Your task to perform on an android device: Go to privacy settings Image 0: 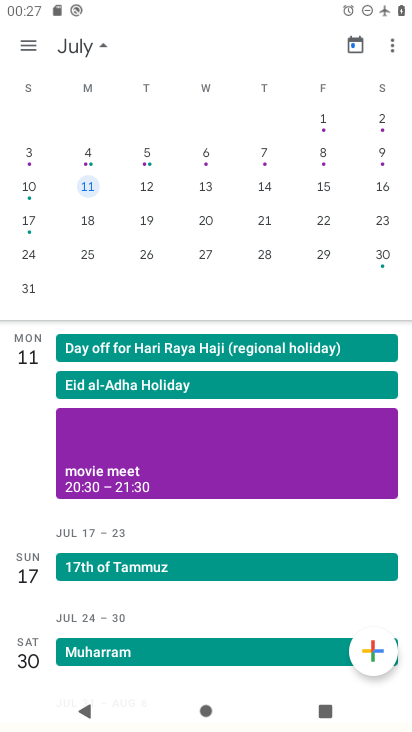
Step 0: press home button
Your task to perform on an android device: Go to privacy settings Image 1: 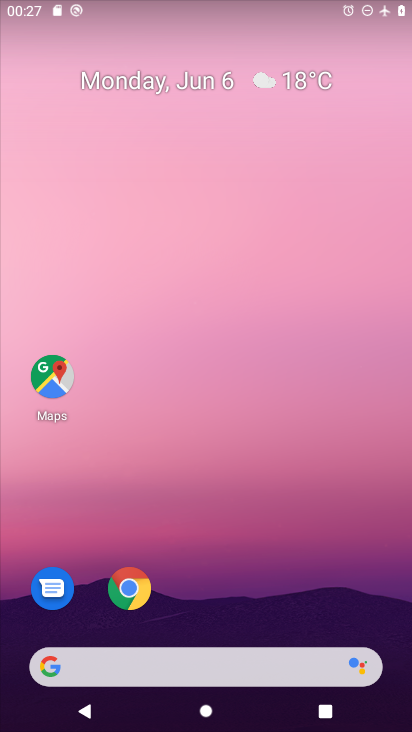
Step 1: drag from (345, 552) to (360, 158)
Your task to perform on an android device: Go to privacy settings Image 2: 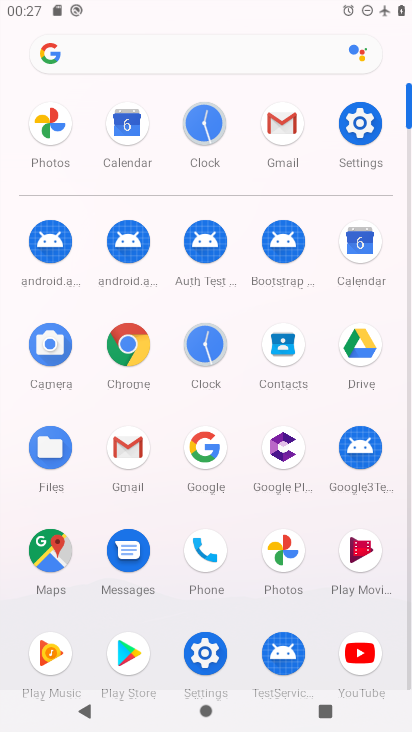
Step 2: click (350, 146)
Your task to perform on an android device: Go to privacy settings Image 3: 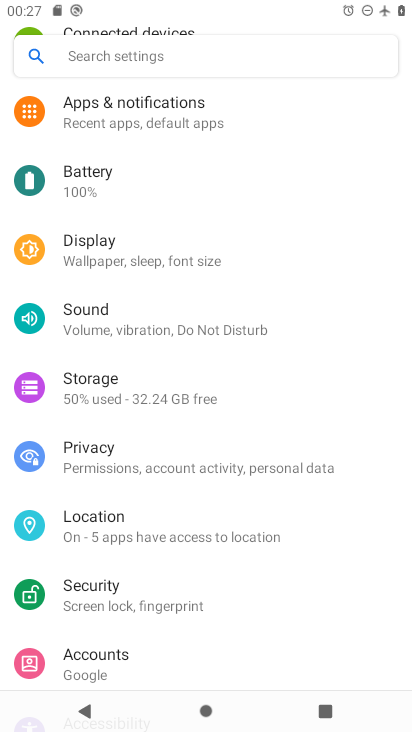
Step 3: drag from (356, 449) to (356, 319)
Your task to perform on an android device: Go to privacy settings Image 4: 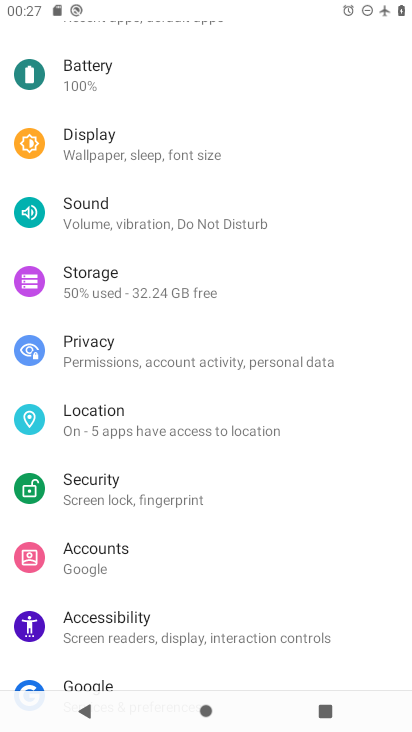
Step 4: drag from (329, 491) to (350, 382)
Your task to perform on an android device: Go to privacy settings Image 5: 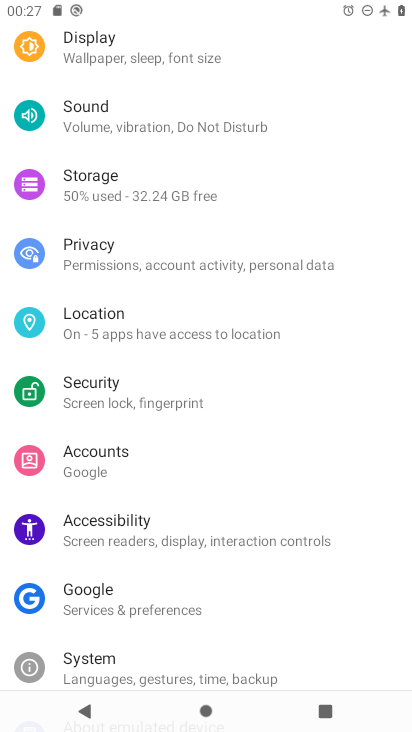
Step 5: drag from (365, 565) to (378, 436)
Your task to perform on an android device: Go to privacy settings Image 6: 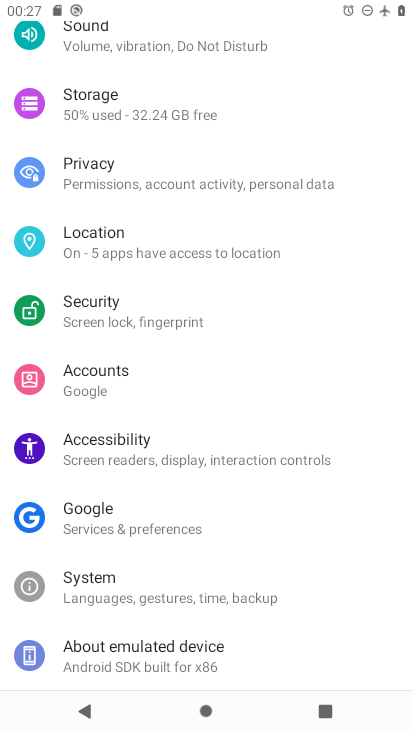
Step 6: drag from (377, 333) to (377, 409)
Your task to perform on an android device: Go to privacy settings Image 7: 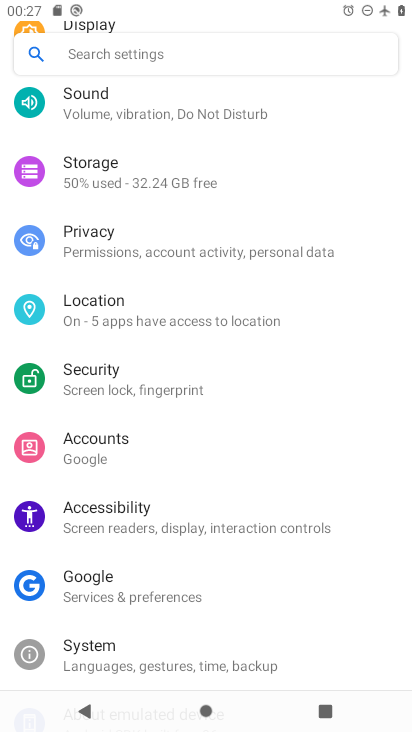
Step 7: drag from (362, 309) to (362, 392)
Your task to perform on an android device: Go to privacy settings Image 8: 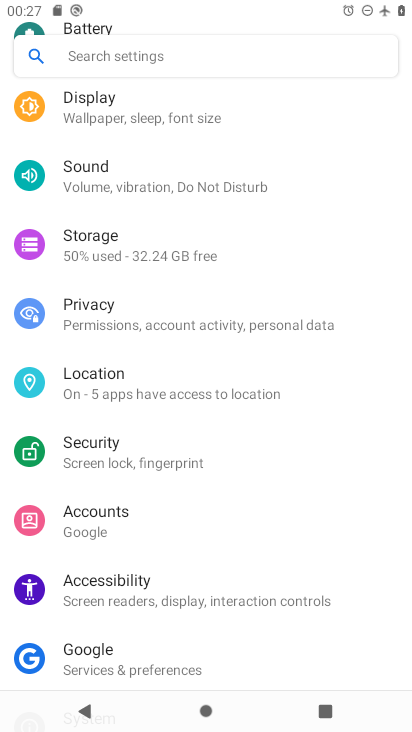
Step 8: drag from (350, 244) to (350, 391)
Your task to perform on an android device: Go to privacy settings Image 9: 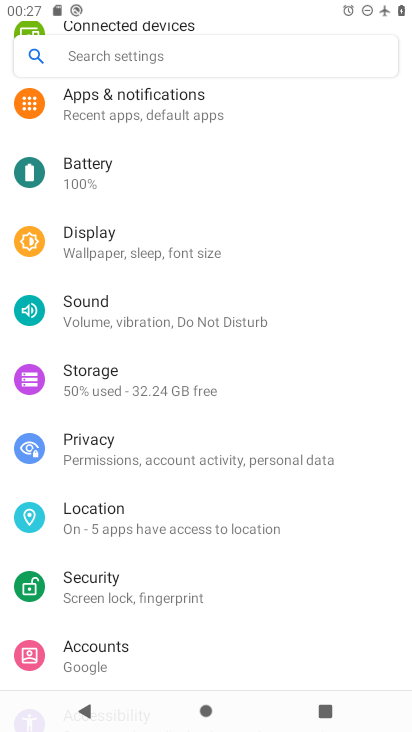
Step 9: click (264, 464)
Your task to perform on an android device: Go to privacy settings Image 10: 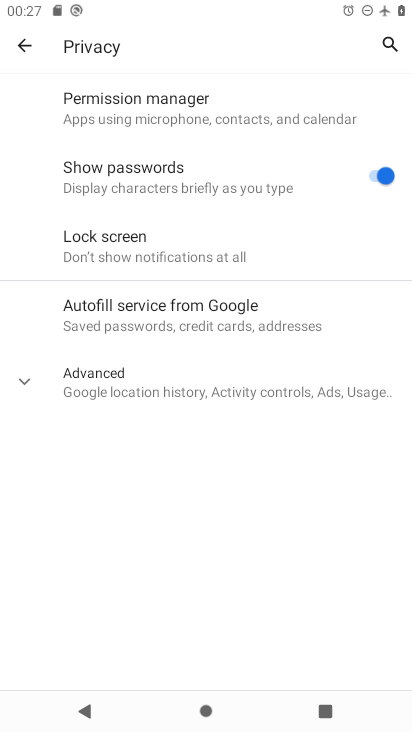
Step 10: task complete